Your task to perform on an android device: check storage Image 0: 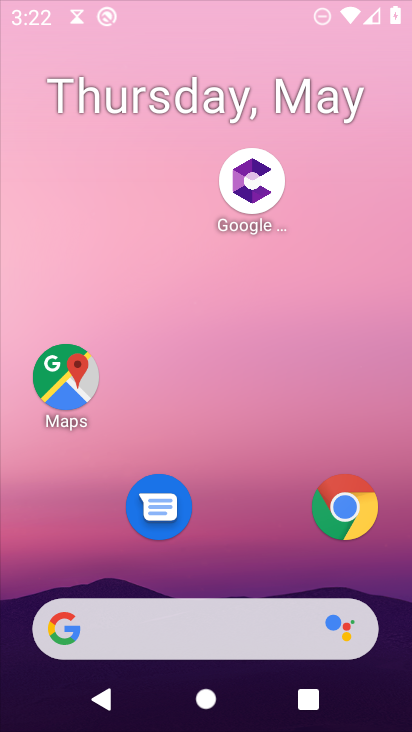
Step 0: press home button
Your task to perform on an android device: check storage Image 1: 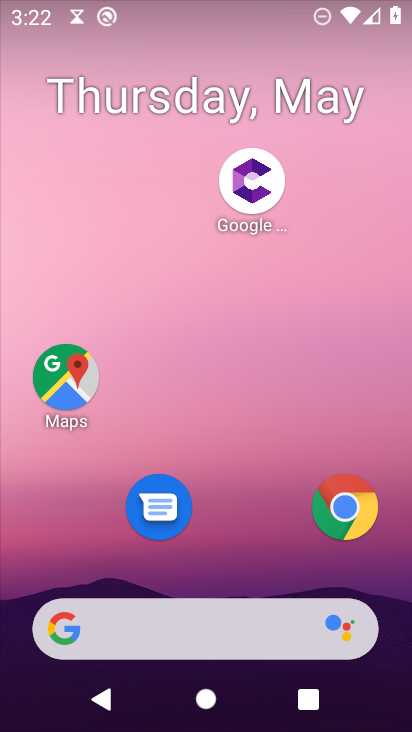
Step 1: drag from (236, 553) to (212, 92)
Your task to perform on an android device: check storage Image 2: 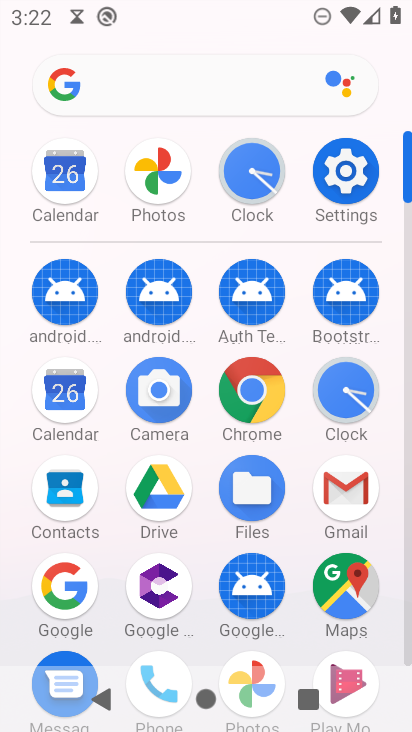
Step 2: click (339, 195)
Your task to perform on an android device: check storage Image 3: 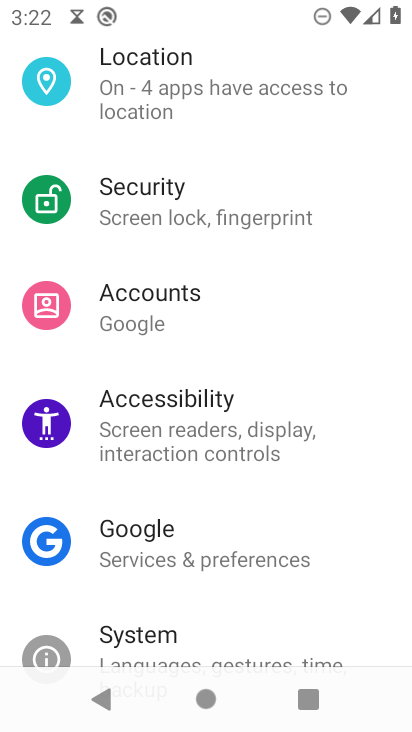
Step 3: drag from (332, 252) to (319, 666)
Your task to perform on an android device: check storage Image 4: 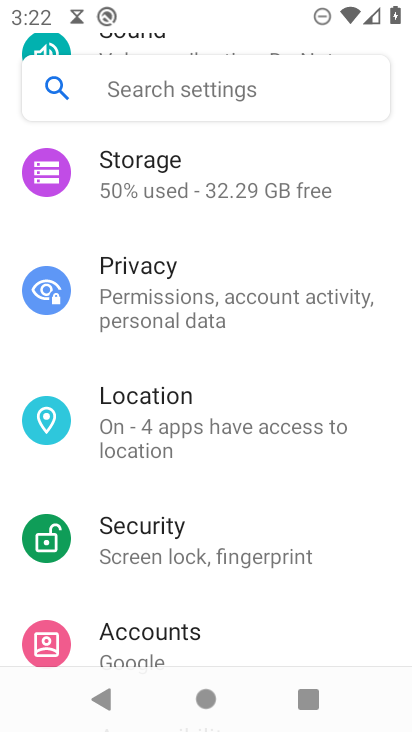
Step 4: click (156, 174)
Your task to perform on an android device: check storage Image 5: 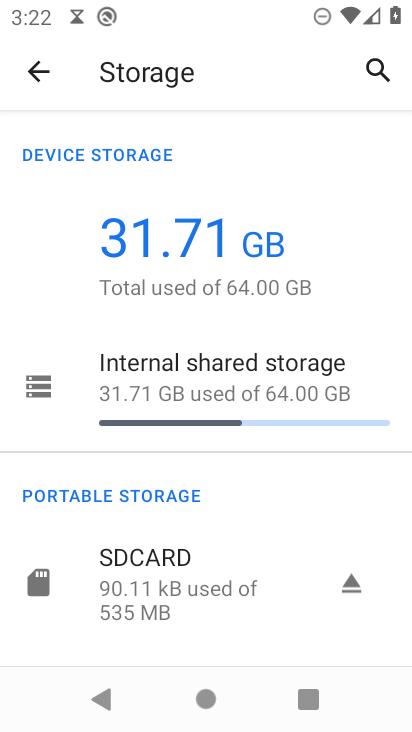
Step 5: task complete